Your task to perform on an android device: choose inbox layout in the gmail app Image 0: 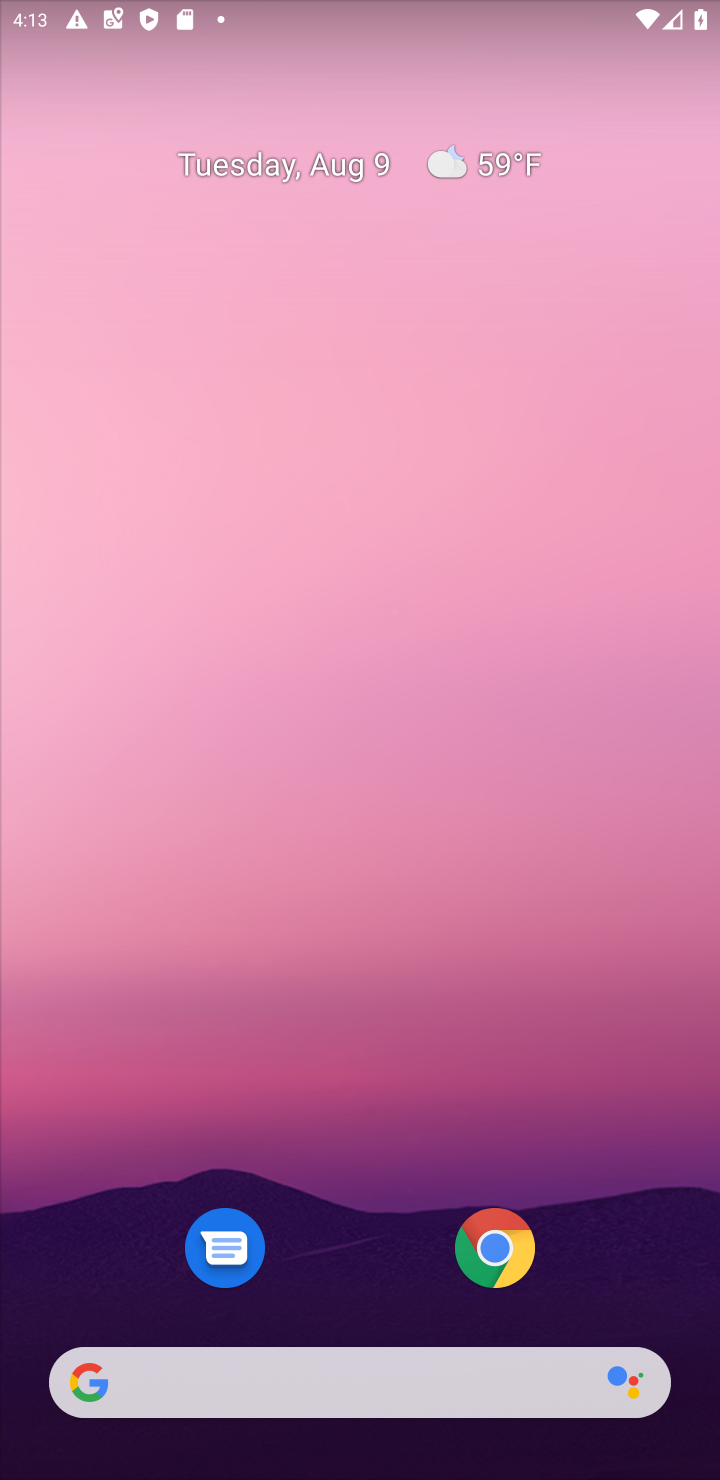
Step 0: drag from (322, 1133) to (220, 179)
Your task to perform on an android device: choose inbox layout in the gmail app Image 1: 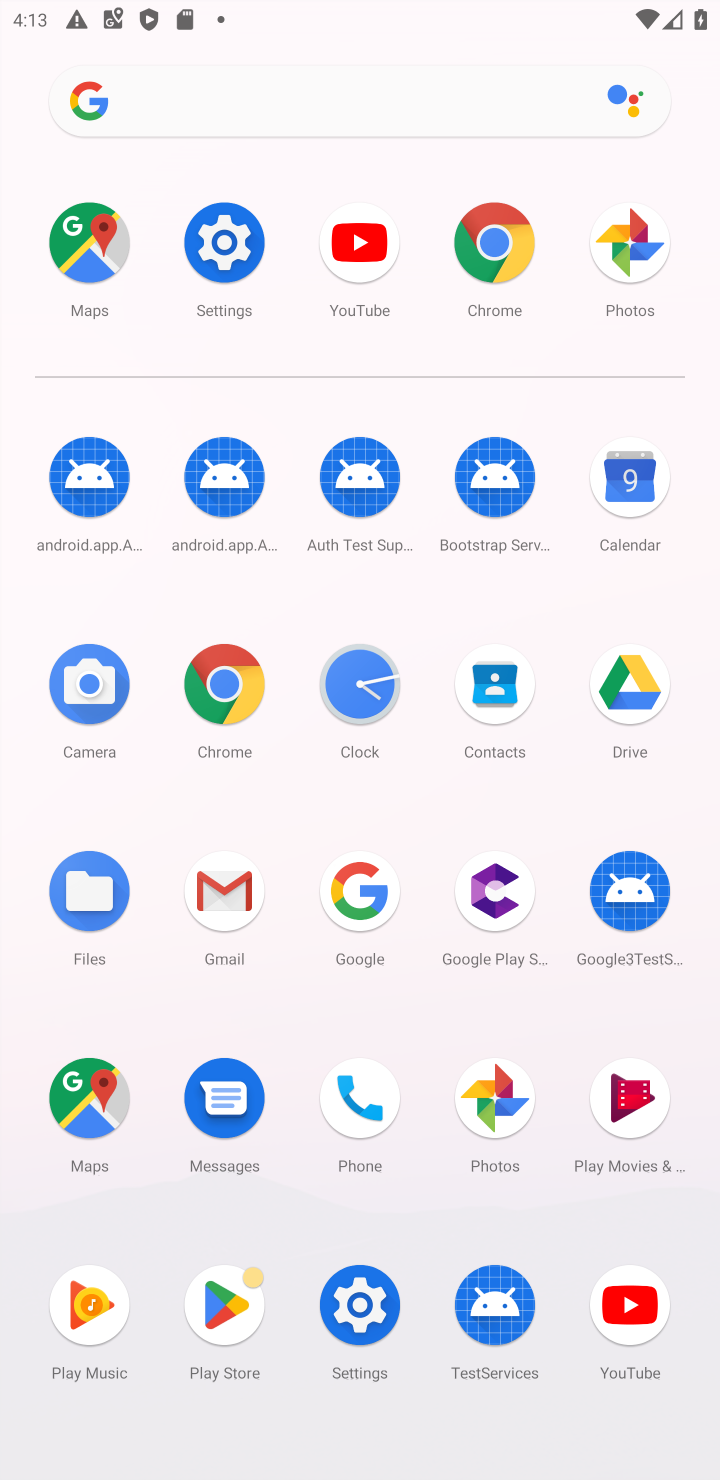
Step 1: click (216, 883)
Your task to perform on an android device: choose inbox layout in the gmail app Image 2: 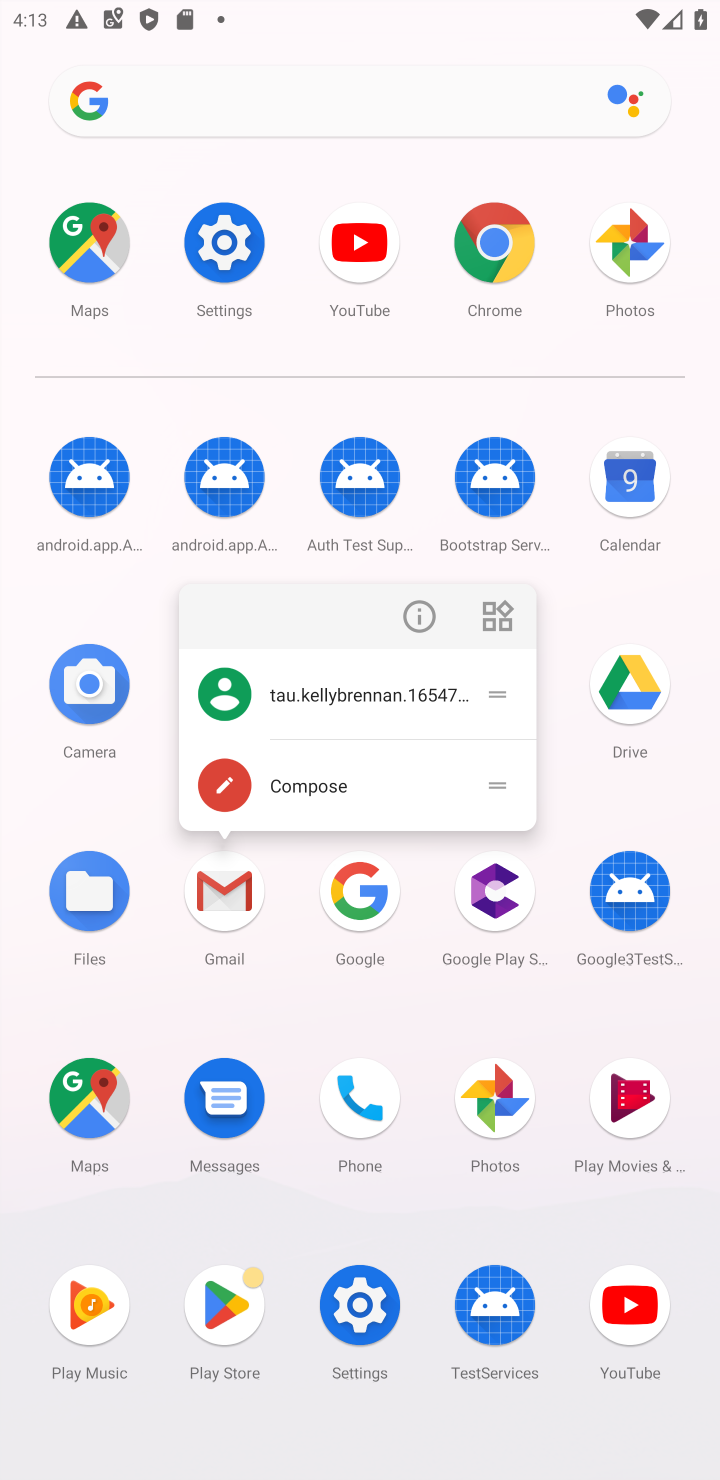
Step 2: click (216, 883)
Your task to perform on an android device: choose inbox layout in the gmail app Image 3: 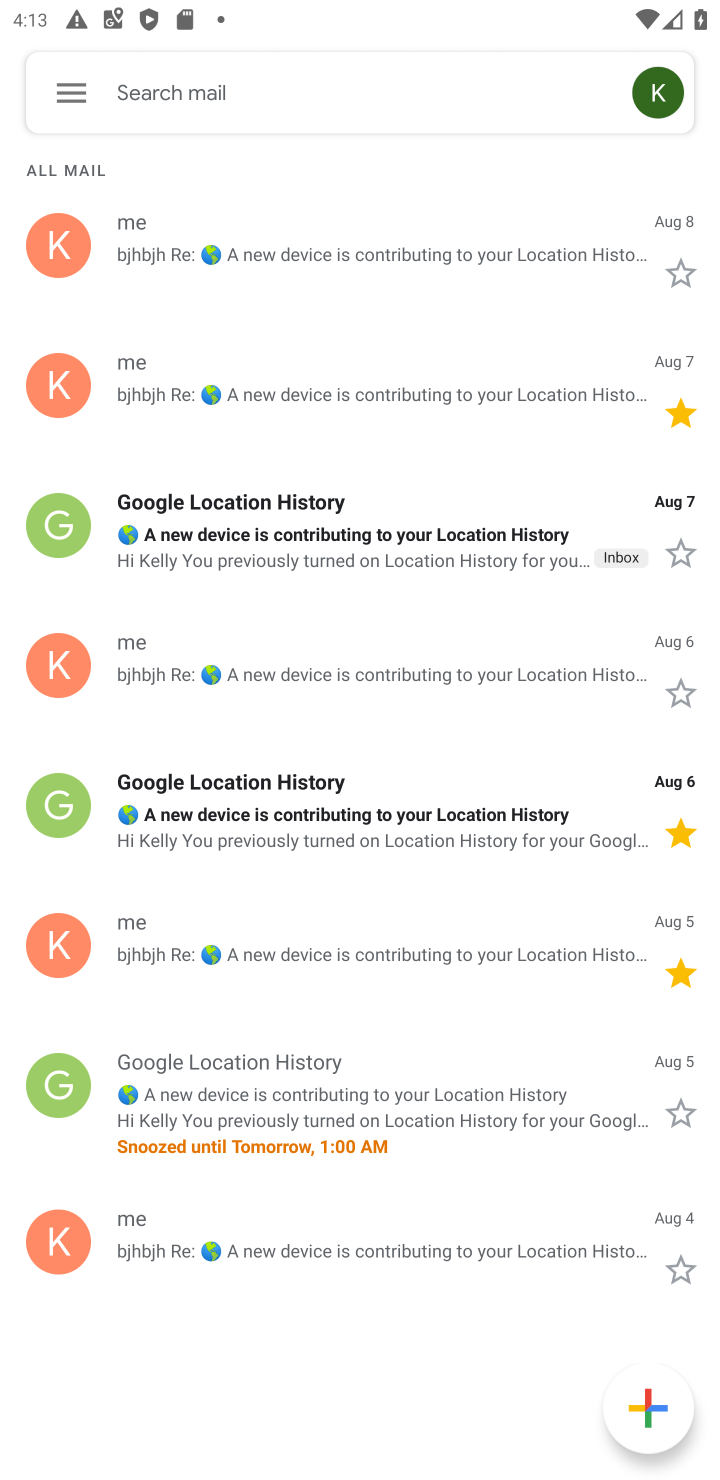
Step 3: click (84, 94)
Your task to perform on an android device: choose inbox layout in the gmail app Image 4: 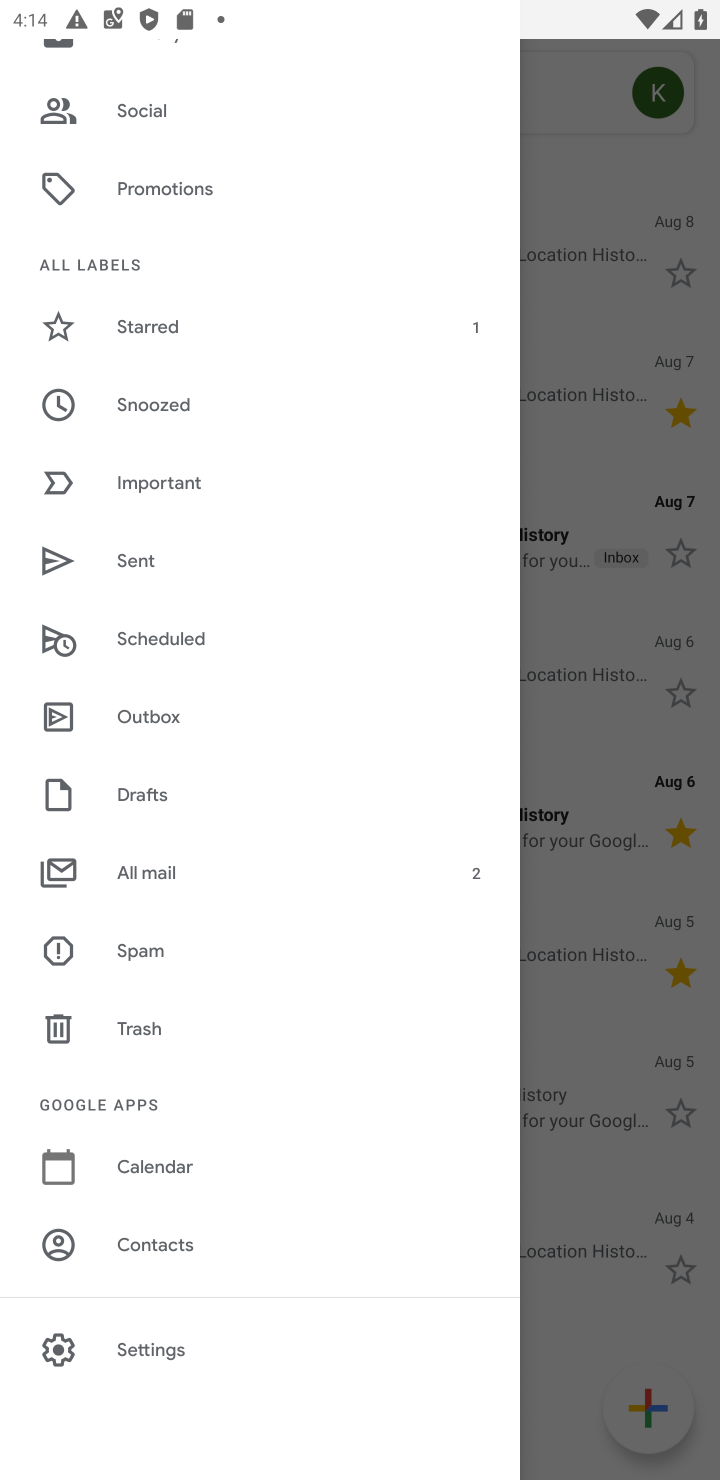
Step 4: click (213, 1348)
Your task to perform on an android device: choose inbox layout in the gmail app Image 5: 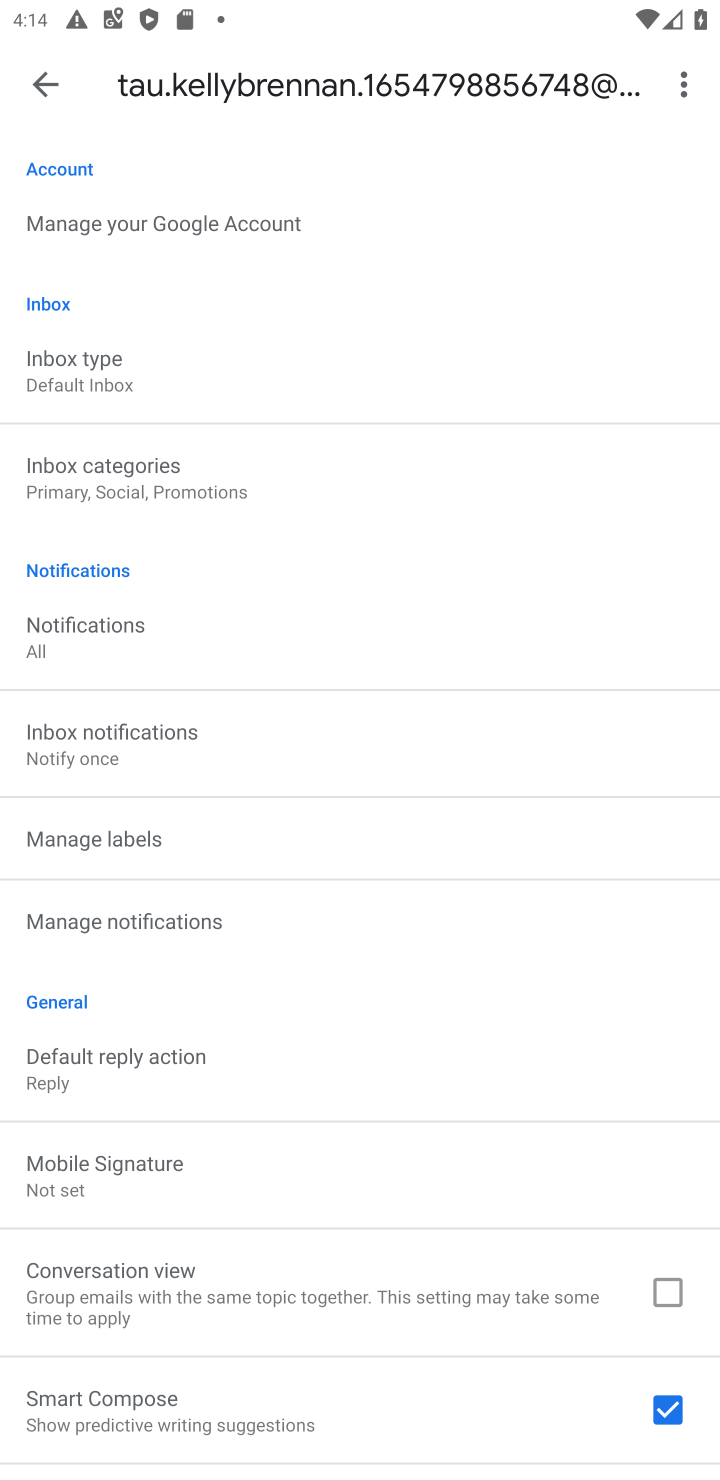
Step 5: click (81, 376)
Your task to perform on an android device: choose inbox layout in the gmail app Image 6: 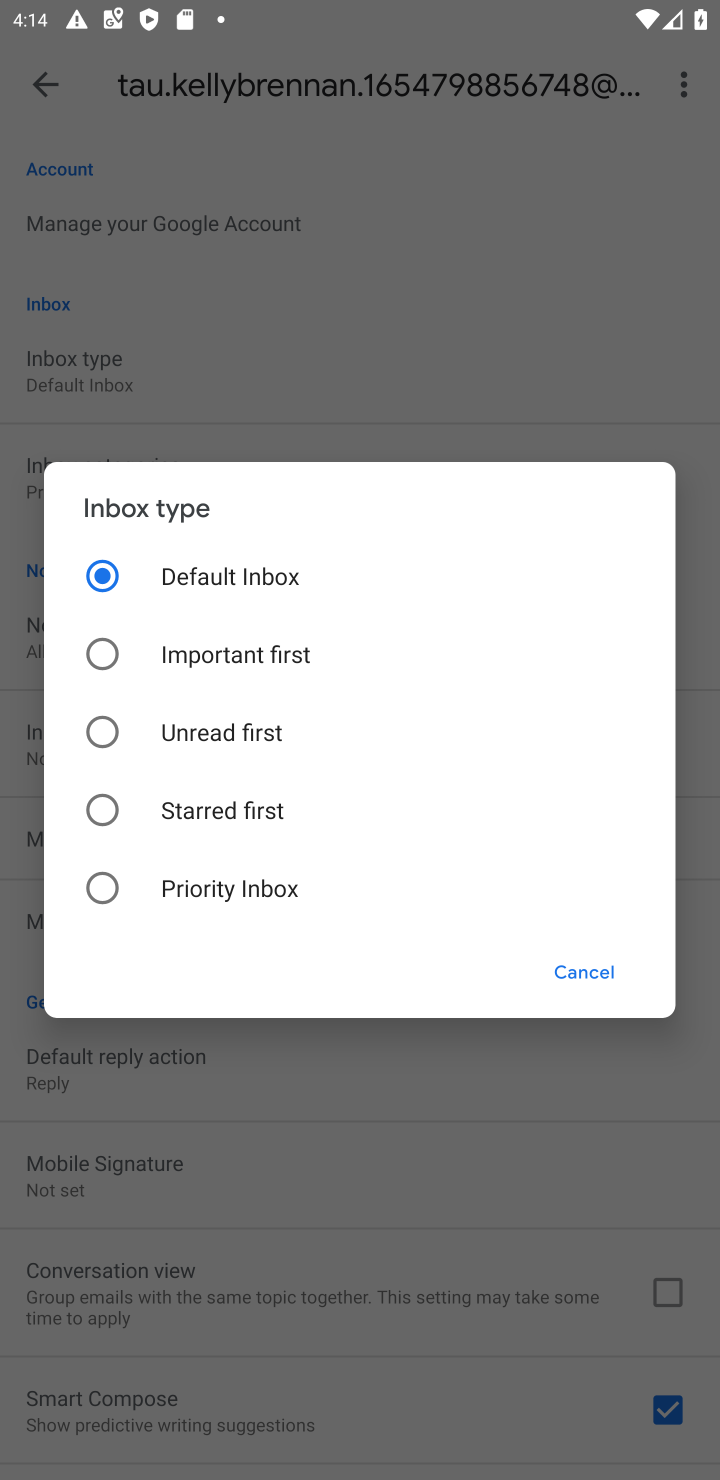
Step 6: task complete